Your task to perform on an android device: snooze an email in the gmail app Image 0: 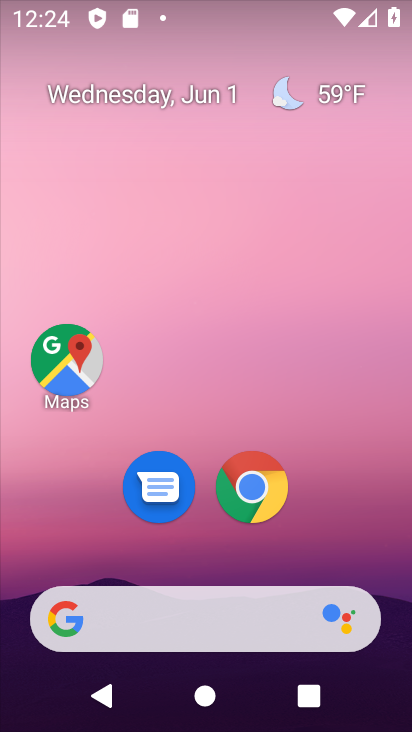
Step 0: drag from (117, 534) to (173, 70)
Your task to perform on an android device: snooze an email in the gmail app Image 1: 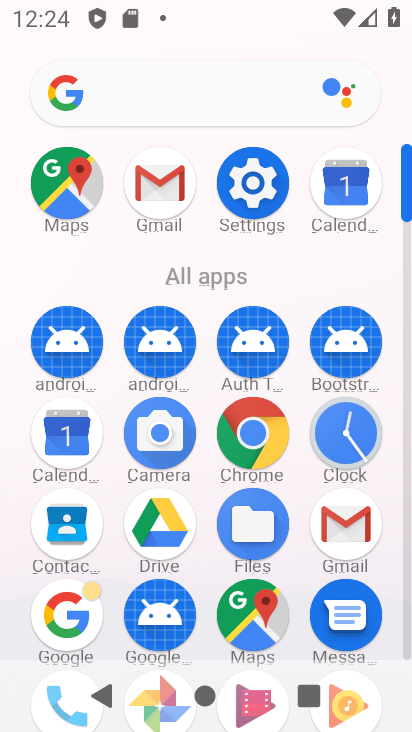
Step 1: click (161, 185)
Your task to perform on an android device: snooze an email in the gmail app Image 2: 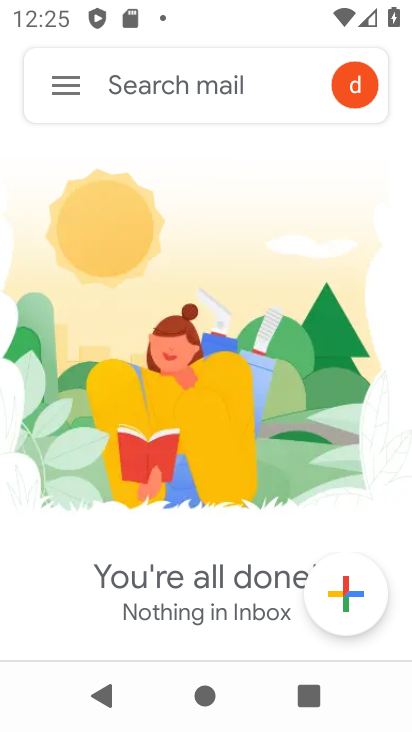
Step 2: click (63, 82)
Your task to perform on an android device: snooze an email in the gmail app Image 3: 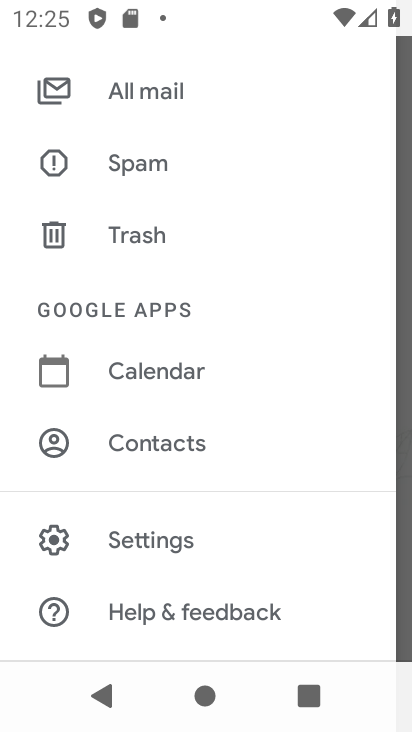
Step 3: click (151, 94)
Your task to perform on an android device: snooze an email in the gmail app Image 4: 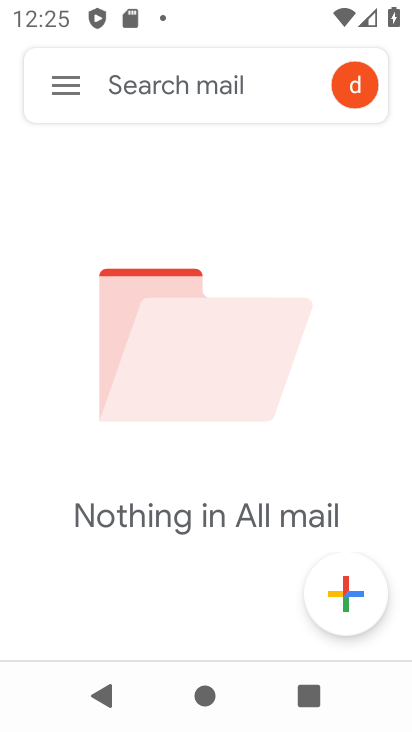
Step 4: task complete